Your task to perform on an android device: Search for a new lawnmower on home depot Image 0: 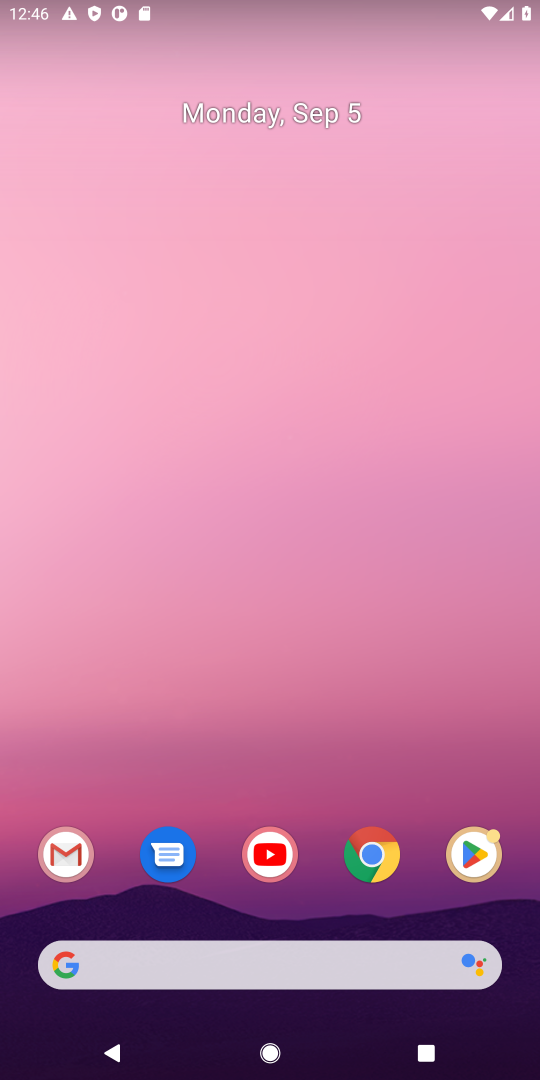
Step 0: click (320, 960)
Your task to perform on an android device: Search for a new lawnmower on home depot Image 1: 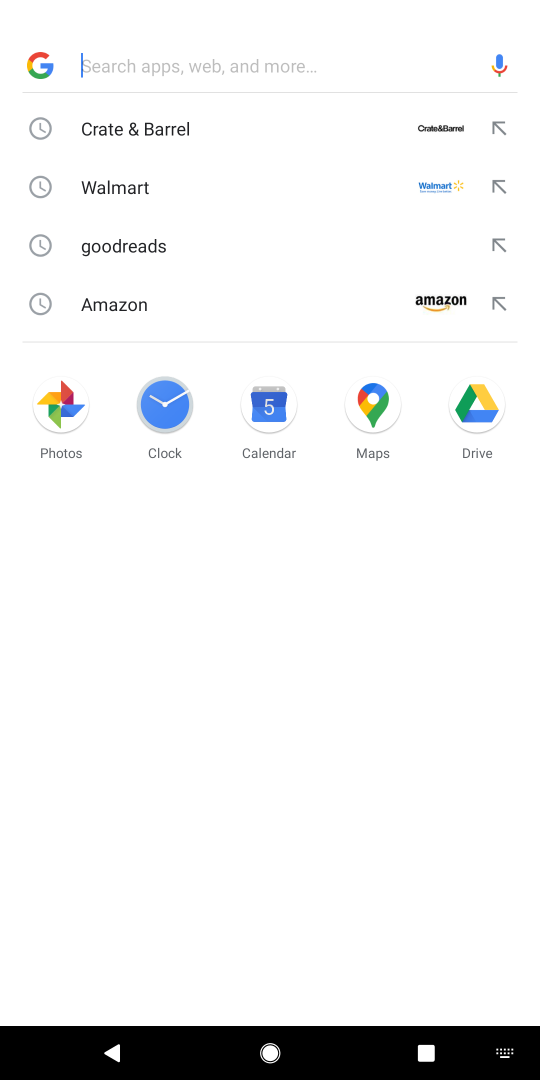
Step 1: press enter
Your task to perform on an android device: Search for a new lawnmower on home depot Image 2: 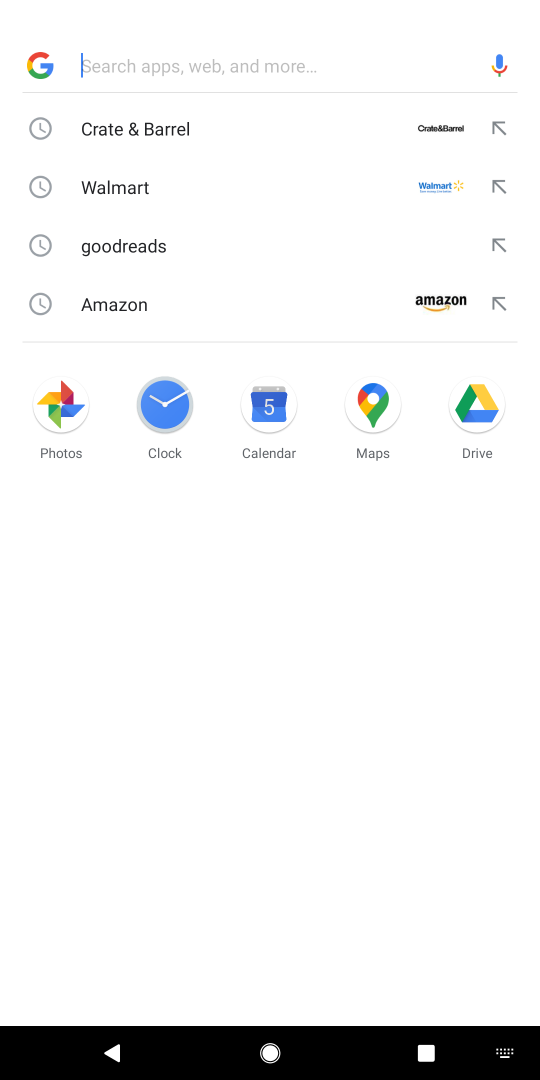
Step 2: type "home depot"
Your task to perform on an android device: Search for a new lawnmower on home depot Image 3: 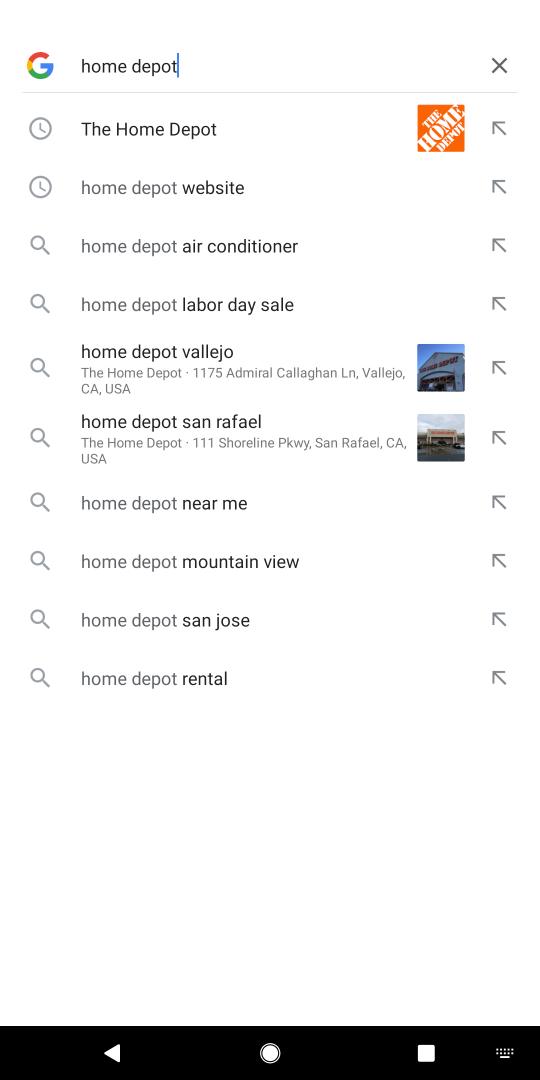
Step 3: click (189, 128)
Your task to perform on an android device: Search for a new lawnmower on home depot Image 4: 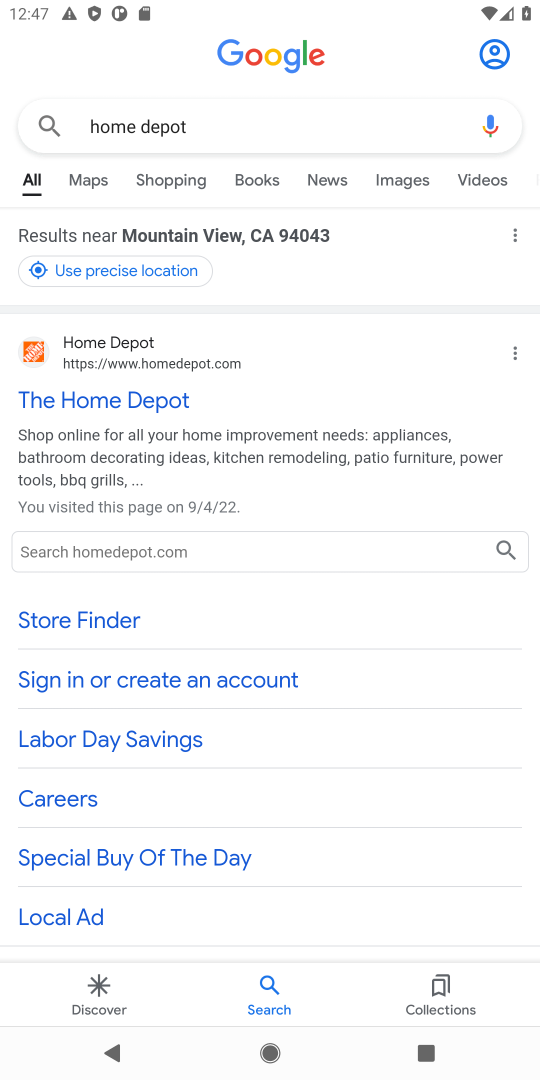
Step 4: click (58, 402)
Your task to perform on an android device: Search for a new lawnmower on home depot Image 5: 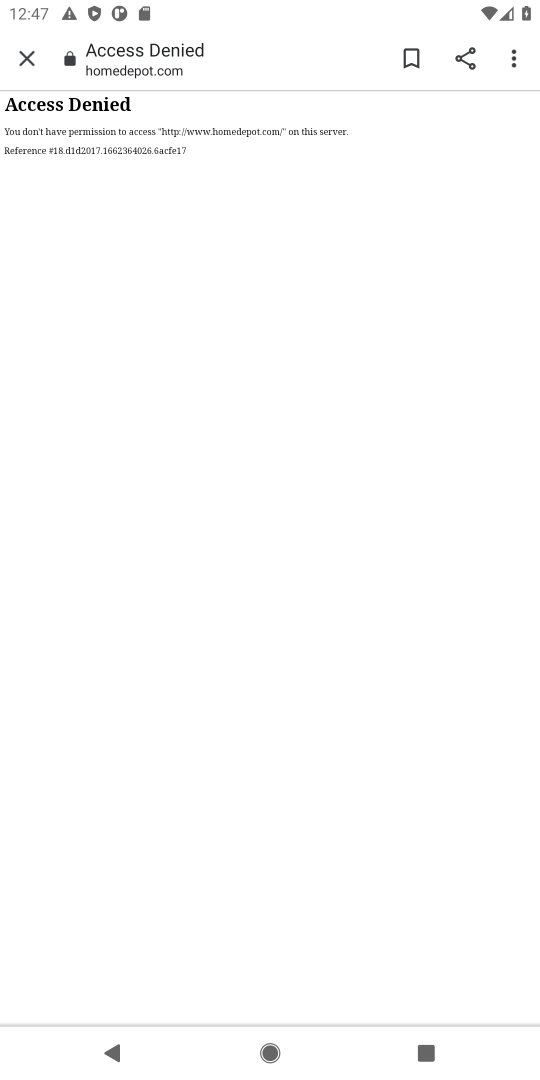
Step 5: task complete